Your task to perform on an android device: What's on the menu at Panera? Image 0: 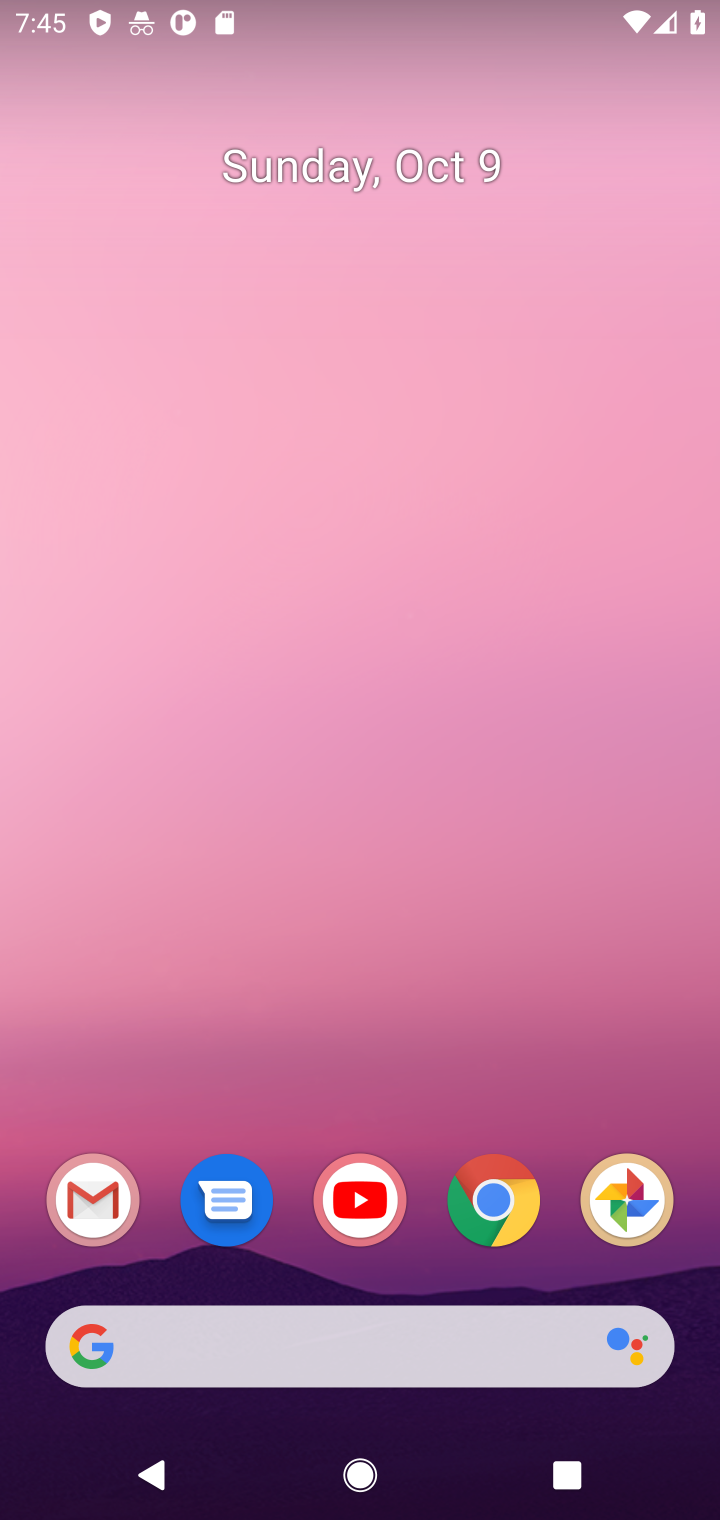
Step 0: click (502, 1205)
Your task to perform on an android device: What's on the menu at Panera? Image 1: 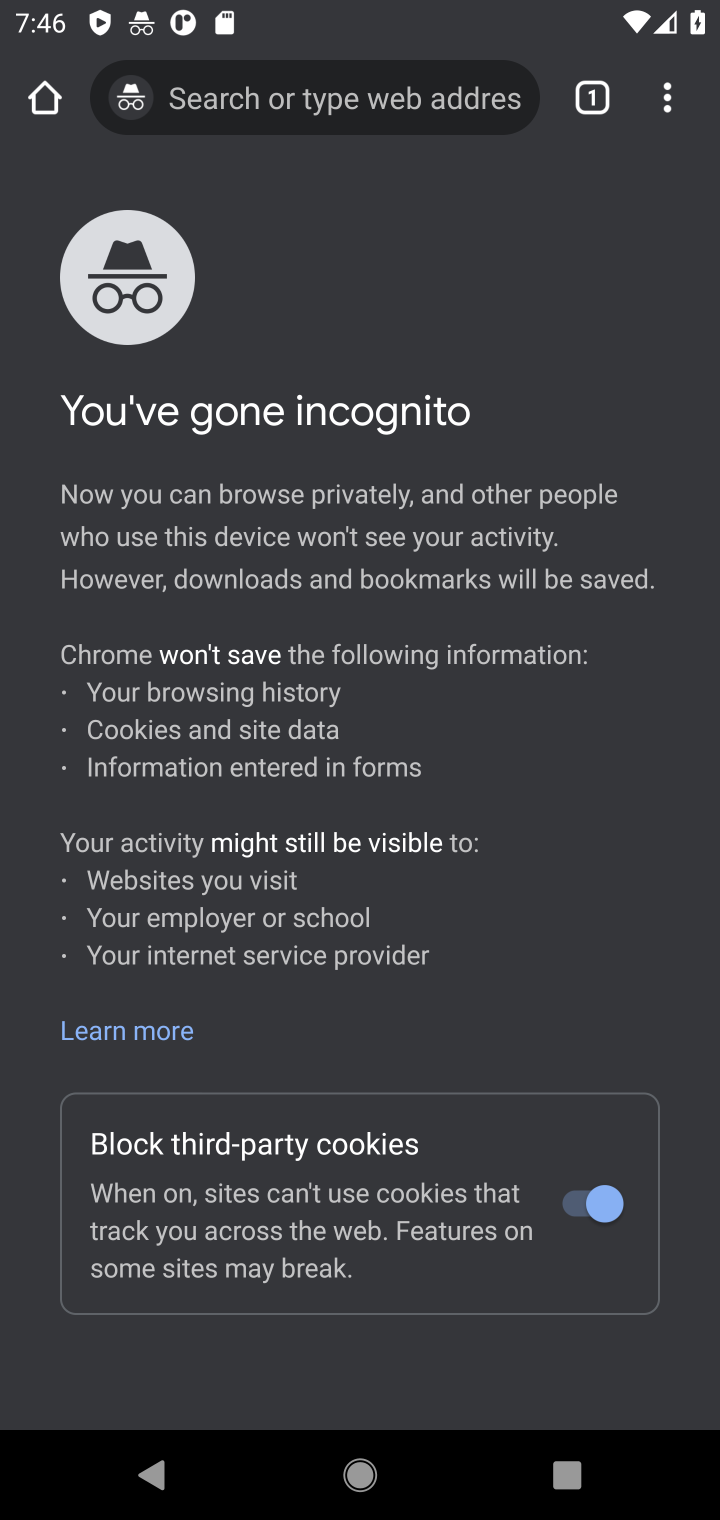
Step 1: click (596, 107)
Your task to perform on an android device: What's on the menu at Panera? Image 2: 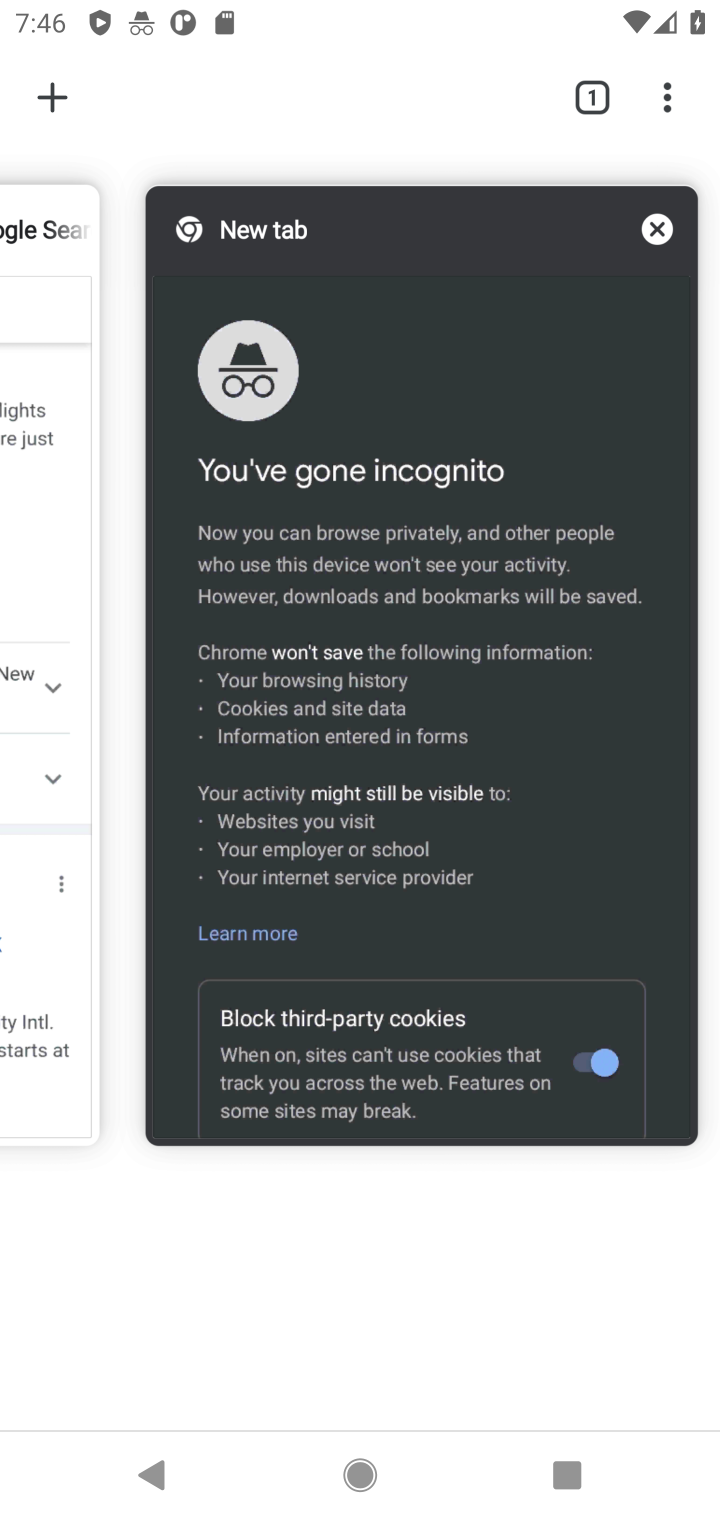
Step 2: click (44, 349)
Your task to perform on an android device: What's on the menu at Panera? Image 3: 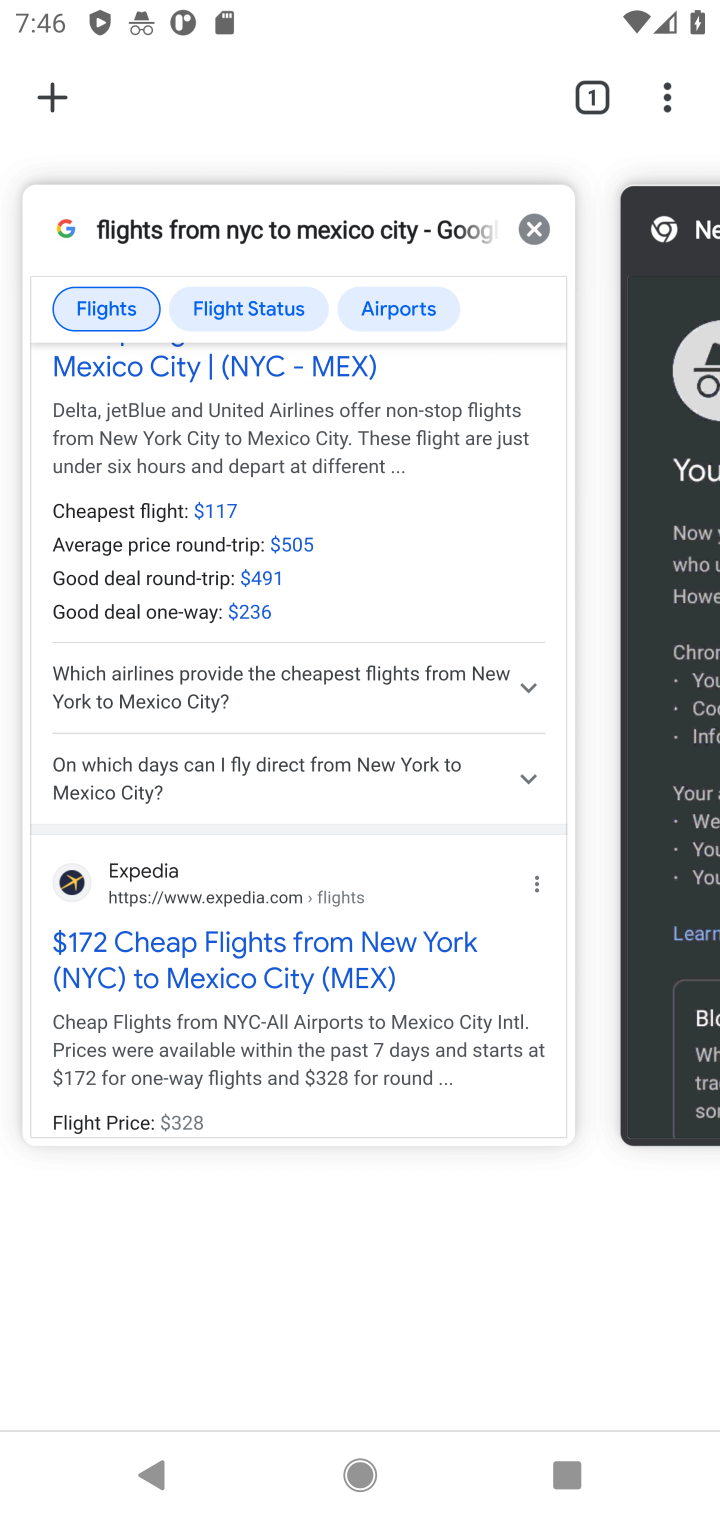
Step 3: click (179, 517)
Your task to perform on an android device: What's on the menu at Panera? Image 4: 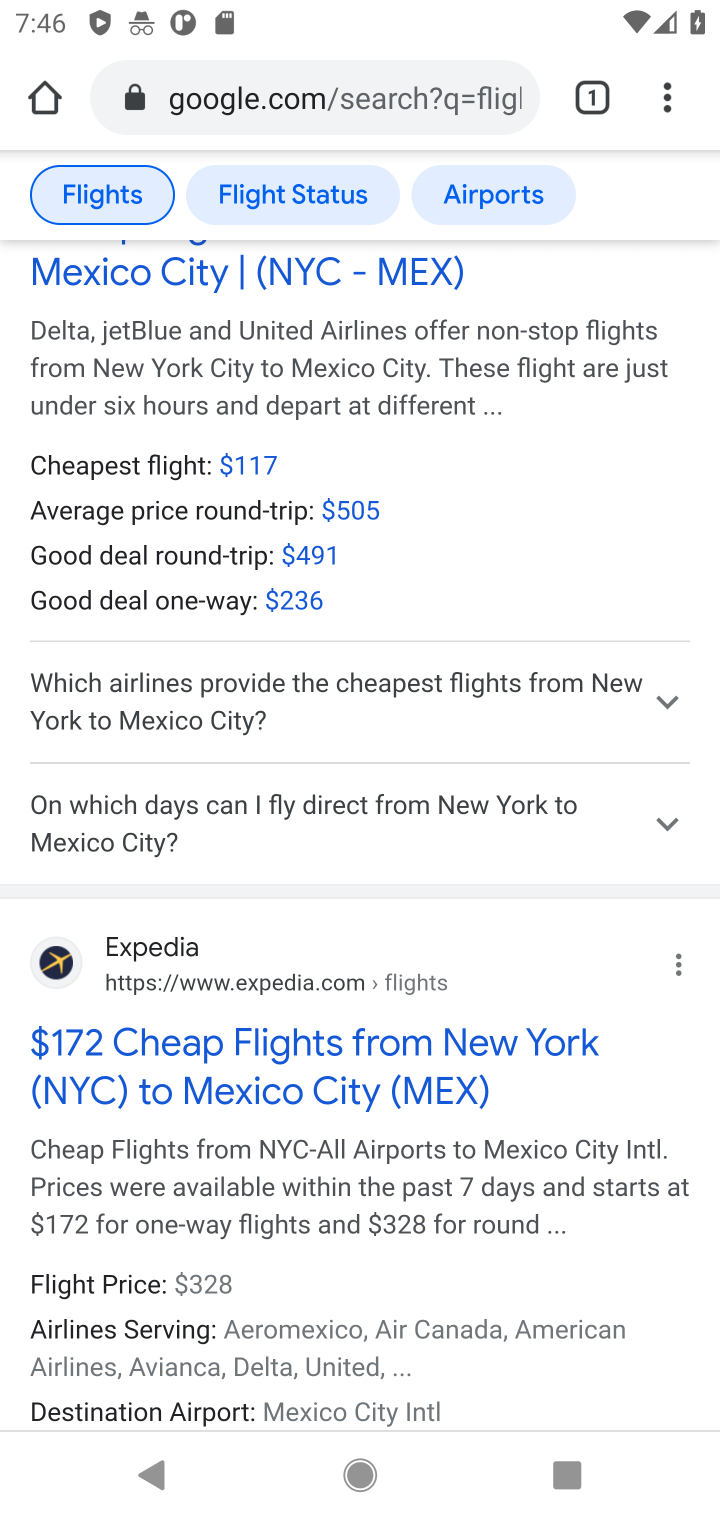
Step 4: click (398, 124)
Your task to perform on an android device: What's on the menu at Panera? Image 5: 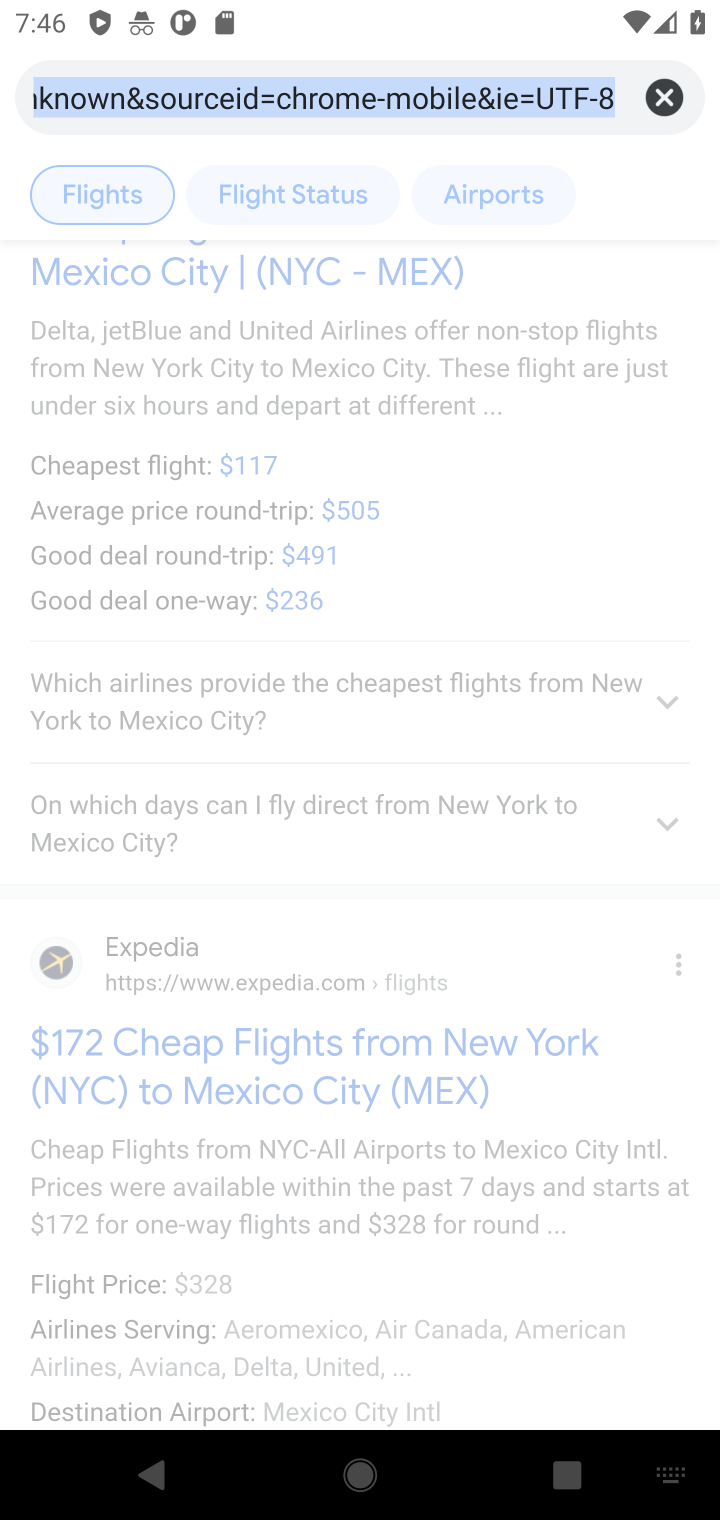
Step 5: type "menu at Panera"
Your task to perform on an android device: What's on the menu at Panera? Image 6: 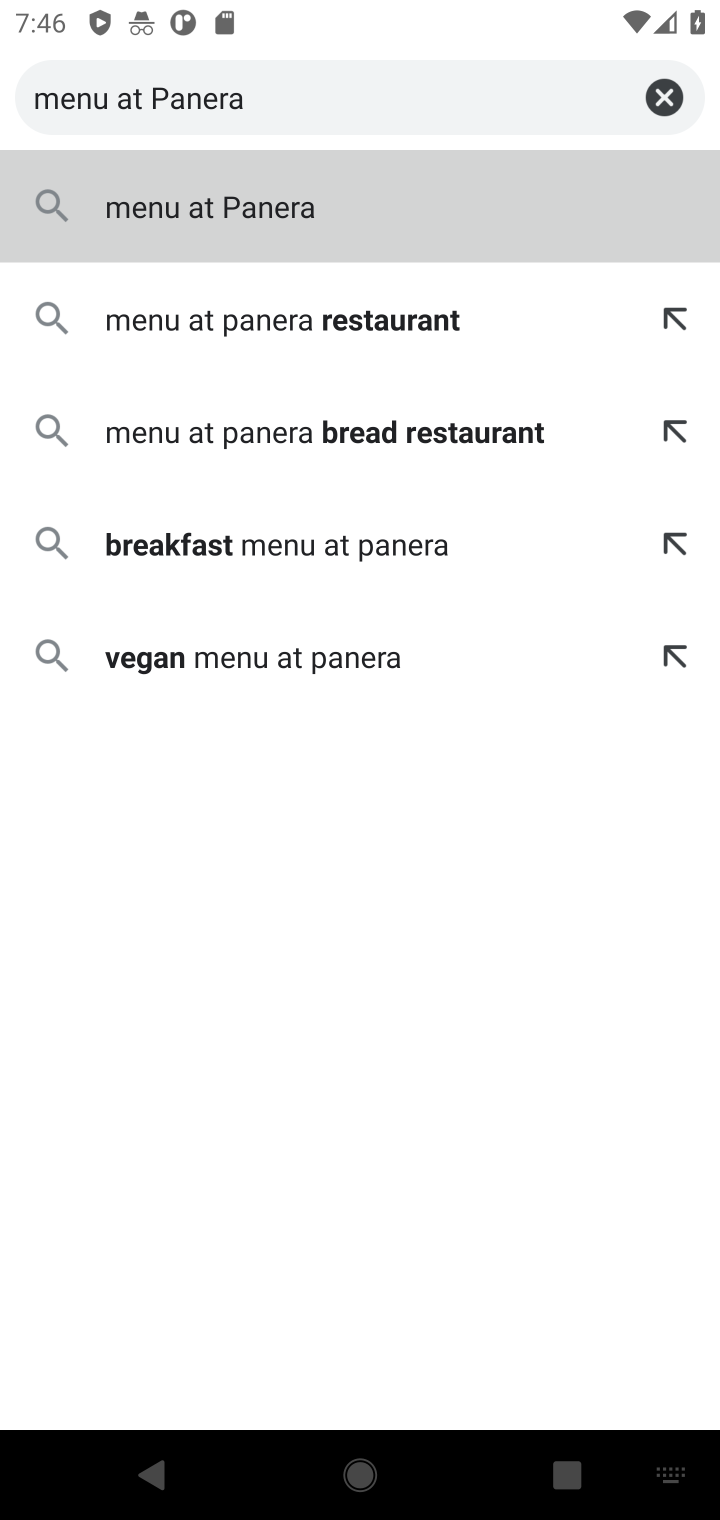
Step 6: type ""
Your task to perform on an android device: What's on the menu at Panera? Image 7: 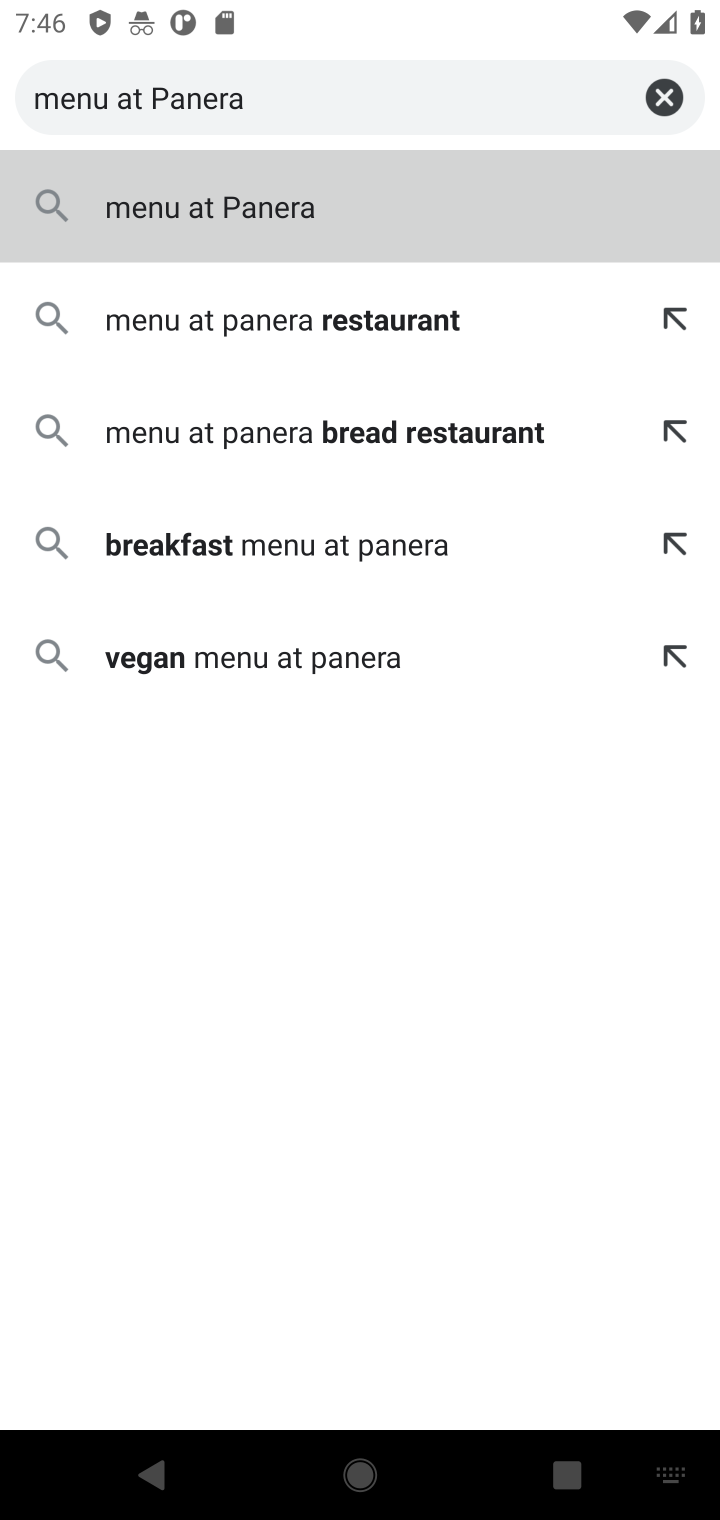
Step 7: click (391, 200)
Your task to perform on an android device: What's on the menu at Panera? Image 8: 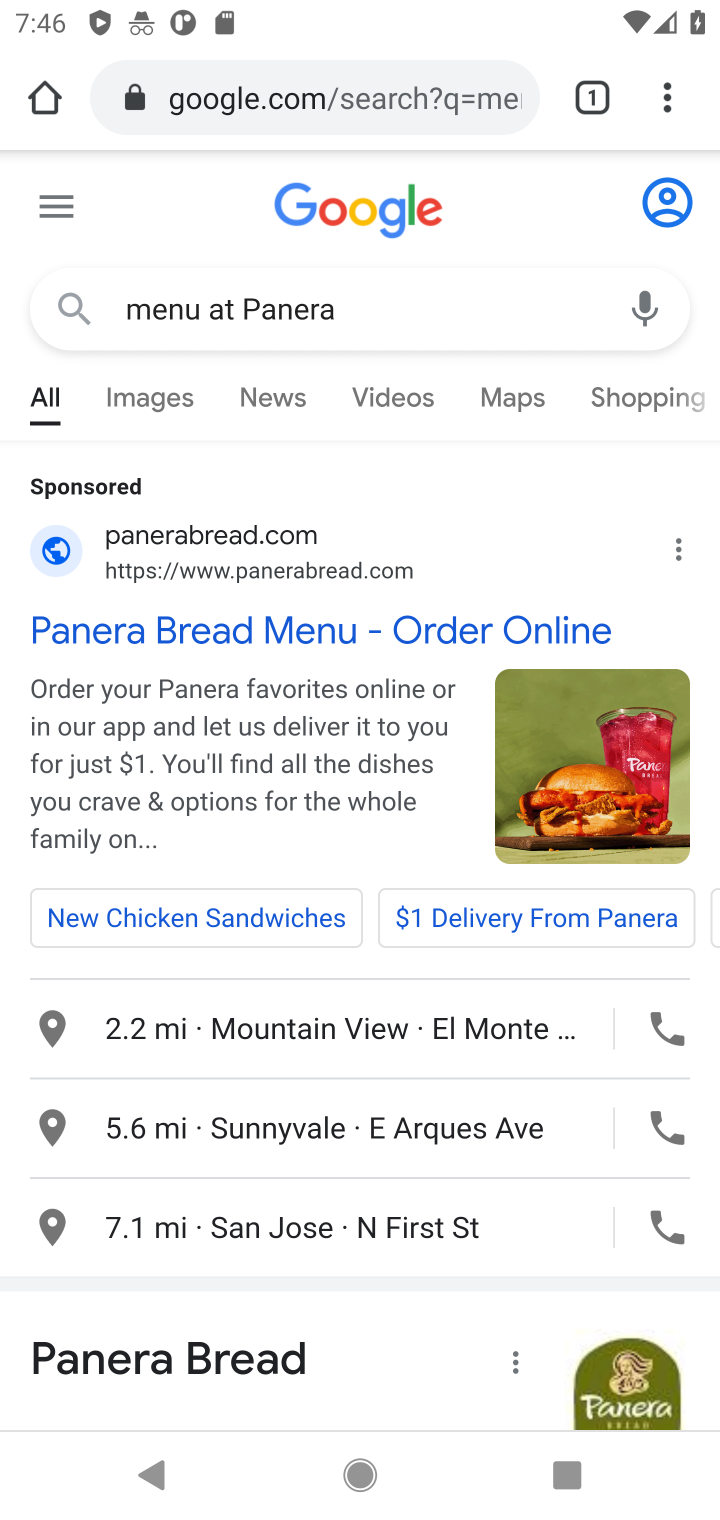
Step 8: drag from (403, 863) to (368, 387)
Your task to perform on an android device: What's on the menu at Panera? Image 9: 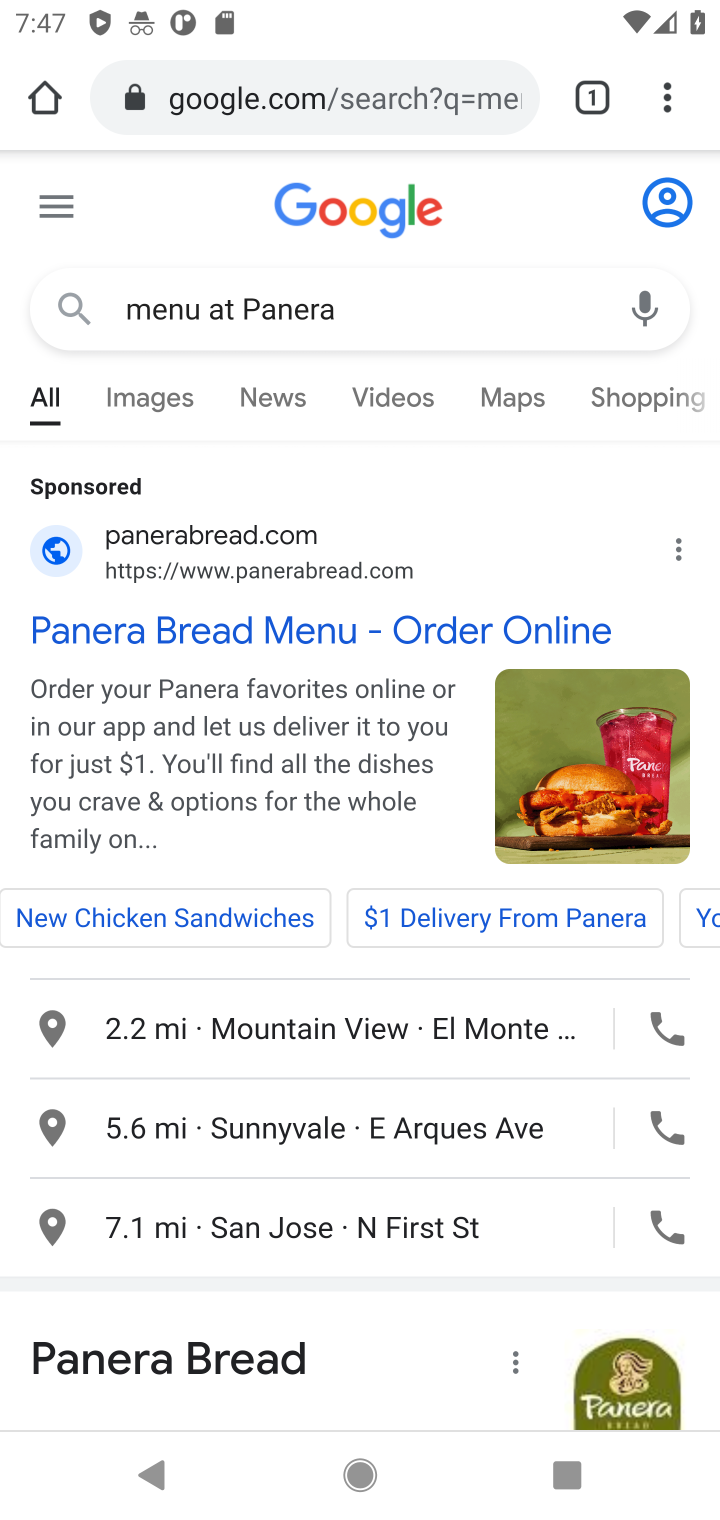
Step 9: drag from (428, 1307) to (411, 244)
Your task to perform on an android device: What's on the menu at Panera? Image 10: 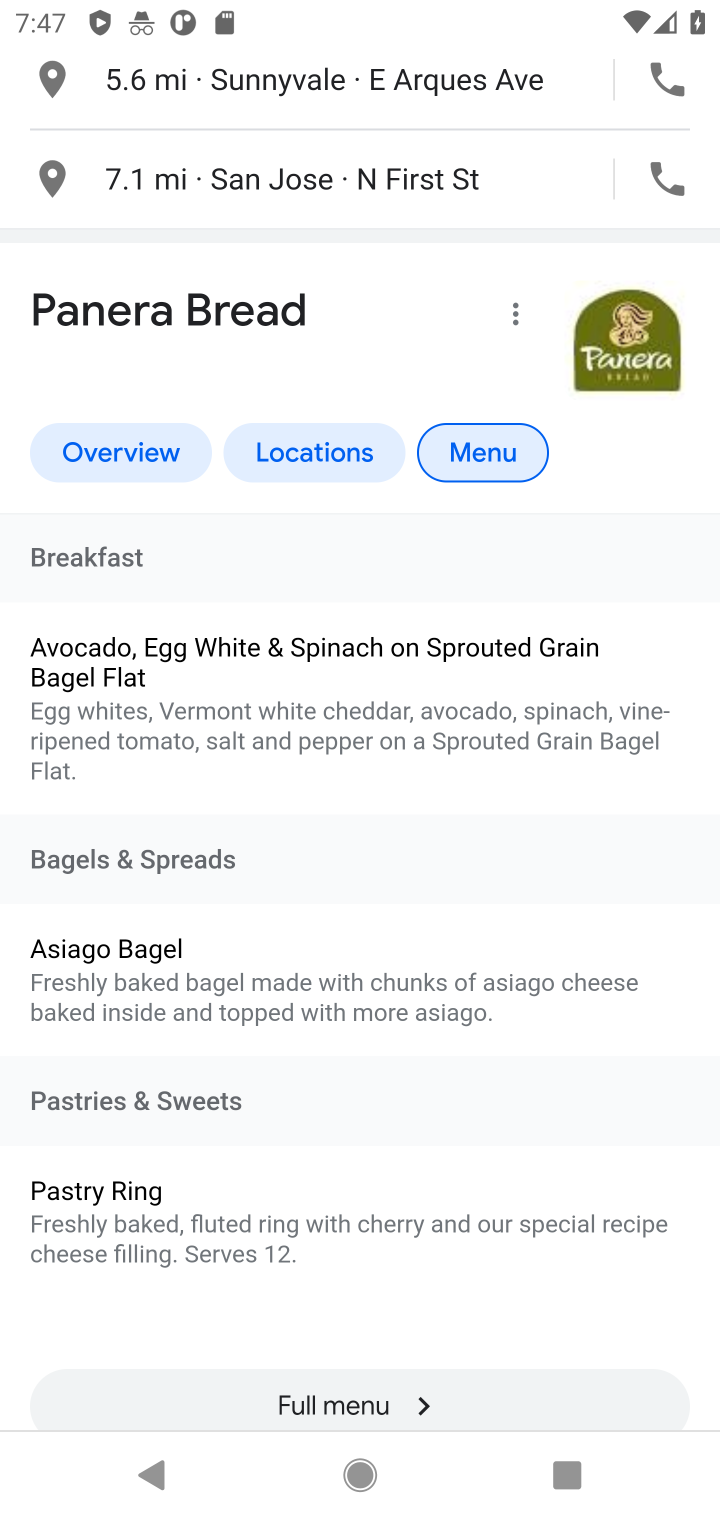
Step 10: click (390, 1397)
Your task to perform on an android device: What's on the menu at Panera? Image 11: 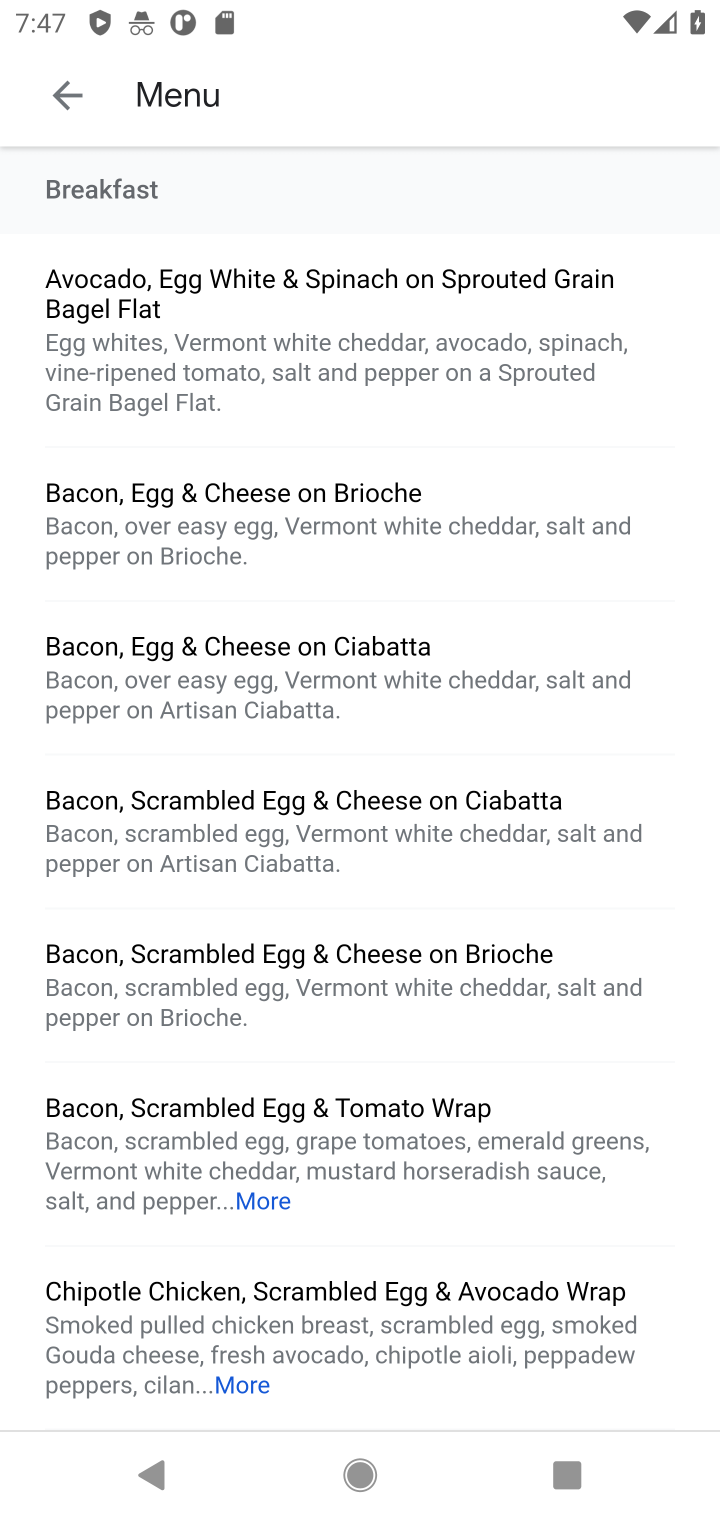
Step 11: task complete